Your task to perform on an android device: toggle javascript in the chrome app Image 0: 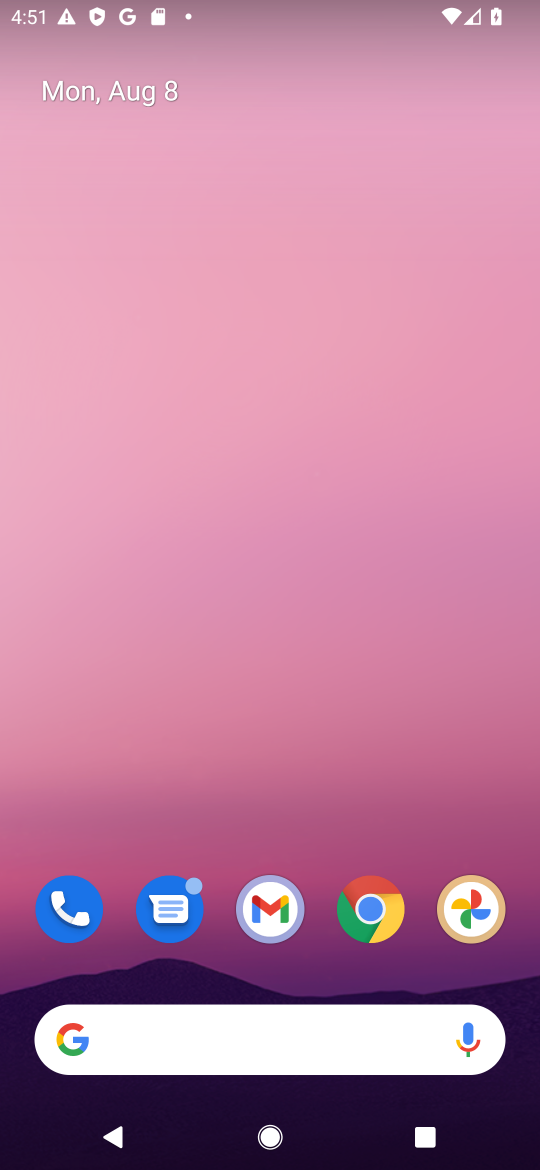
Step 0: click (376, 910)
Your task to perform on an android device: toggle javascript in the chrome app Image 1: 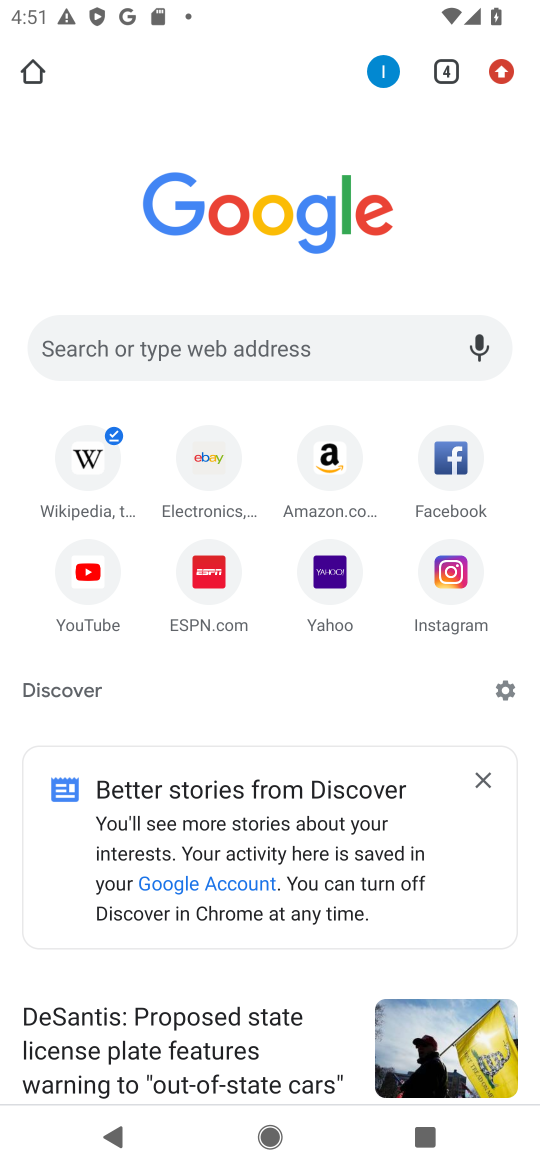
Step 1: drag from (501, 80) to (384, 748)
Your task to perform on an android device: toggle javascript in the chrome app Image 2: 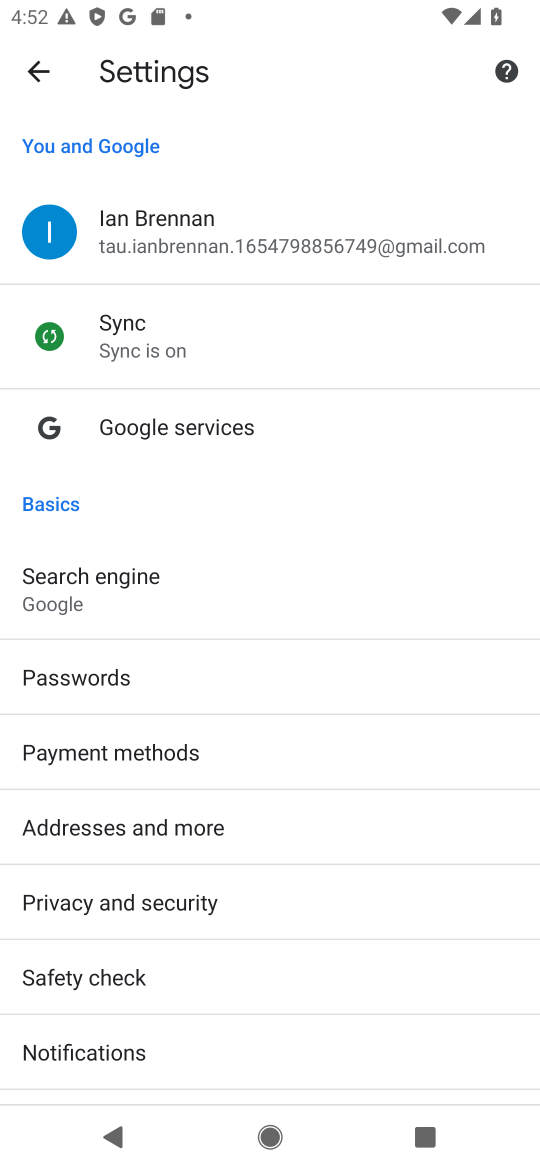
Step 2: drag from (307, 931) to (402, 554)
Your task to perform on an android device: toggle javascript in the chrome app Image 3: 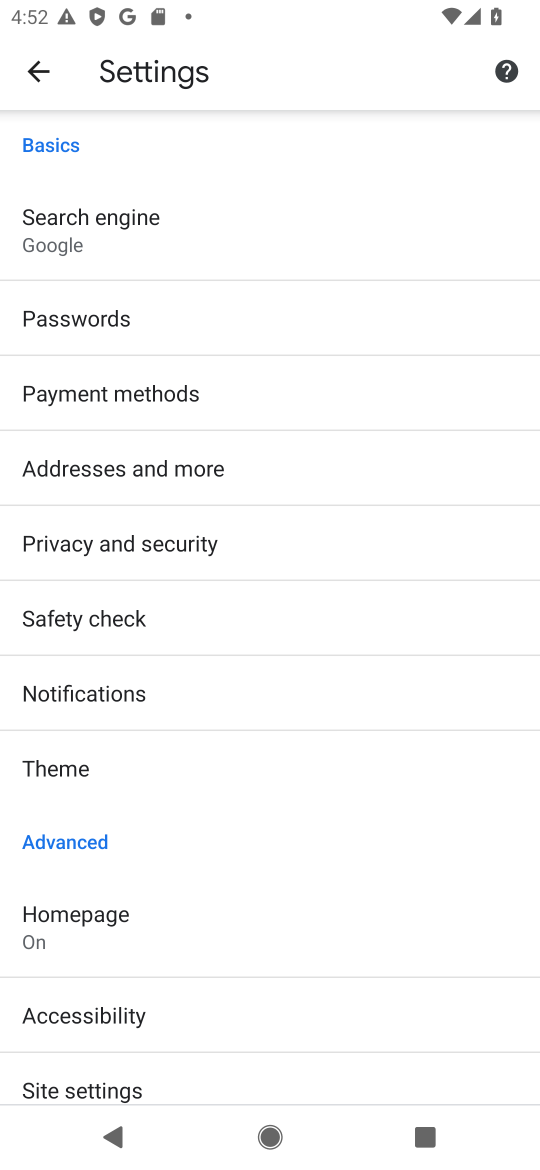
Step 3: drag from (297, 844) to (508, 201)
Your task to perform on an android device: toggle javascript in the chrome app Image 4: 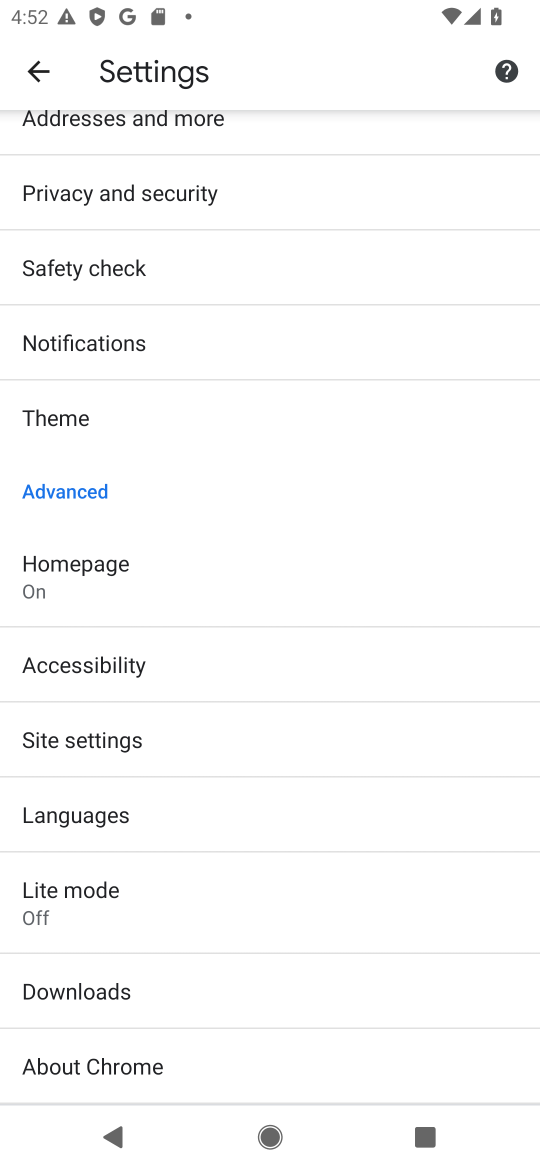
Step 4: click (171, 737)
Your task to perform on an android device: toggle javascript in the chrome app Image 5: 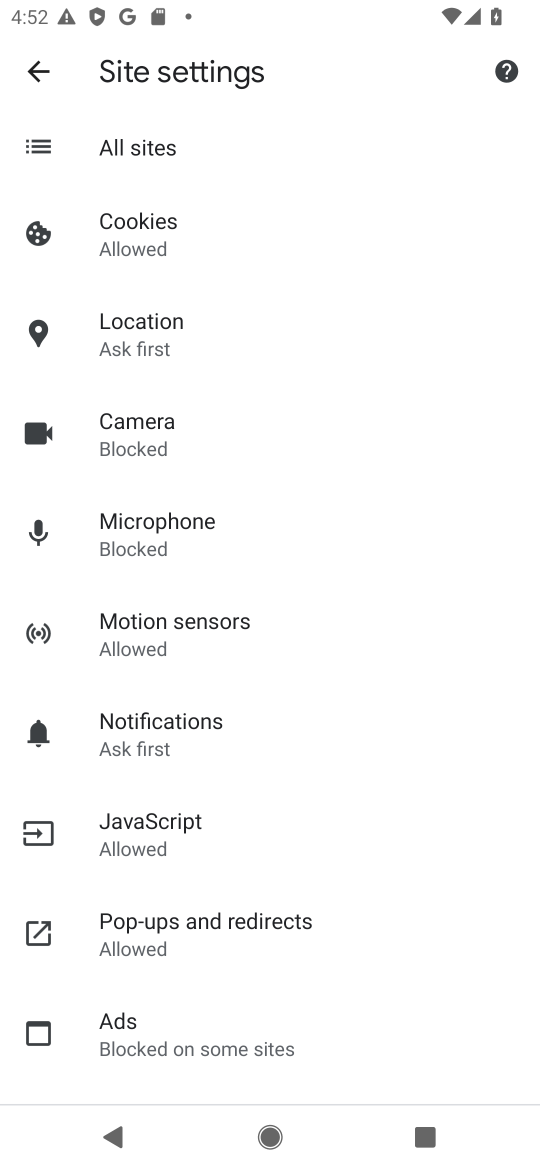
Step 5: click (153, 834)
Your task to perform on an android device: toggle javascript in the chrome app Image 6: 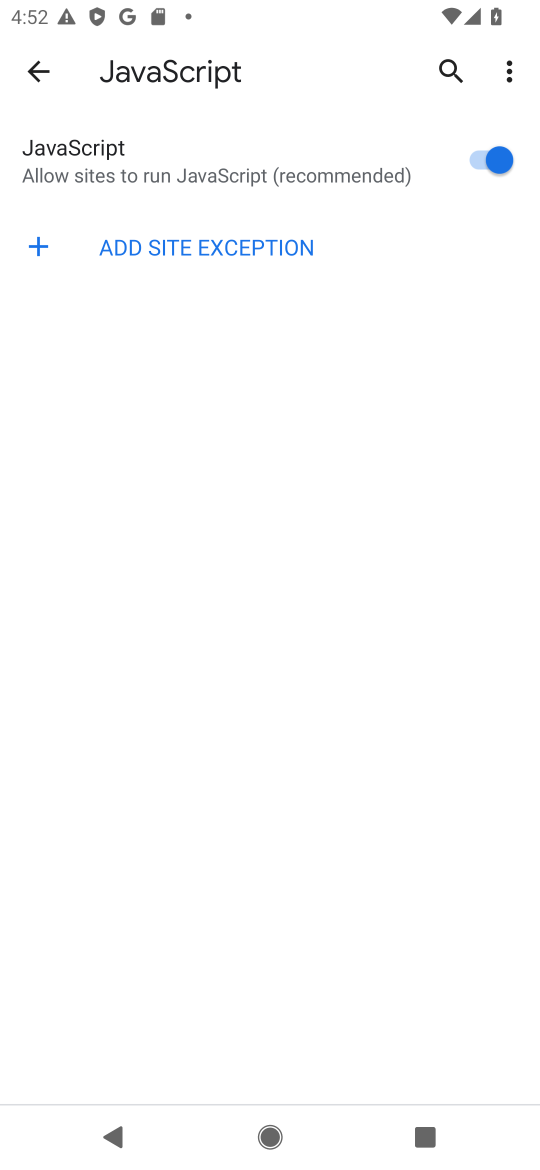
Step 6: click (479, 162)
Your task to perform on an android device: toggle javascript in the chrome app Image 7: 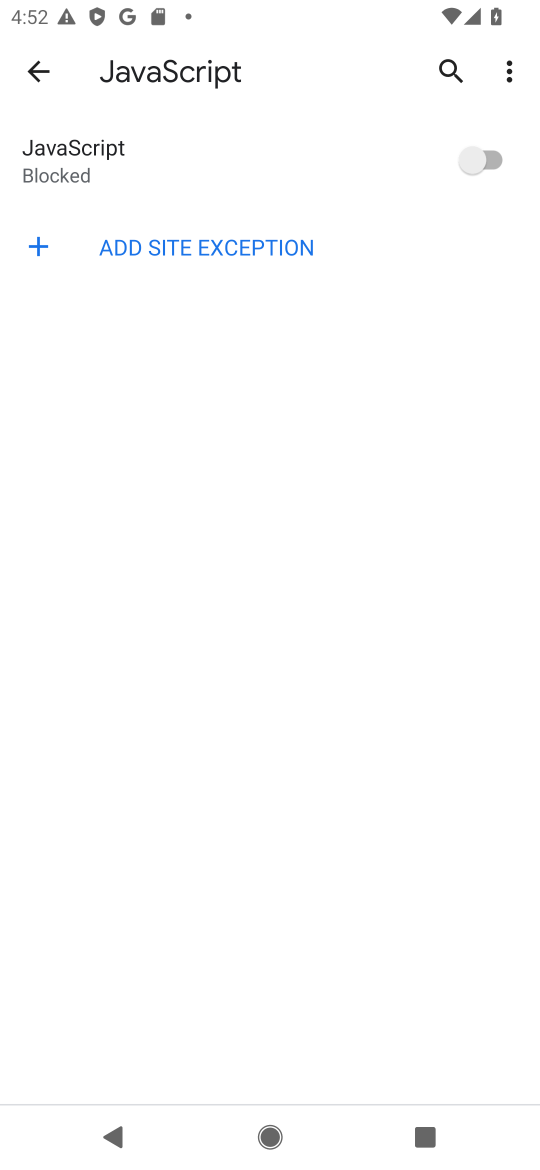
Step 7: task complete